Your task to perform on an android device: Go to privacy settings Image 0: 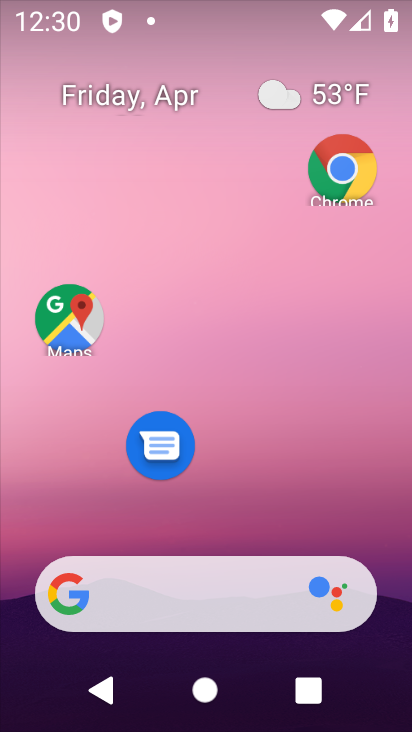
Step 0: drag from (305, 439) to (245, 160)
Your task to perform on an android device: Go to privacy settings Image 1: 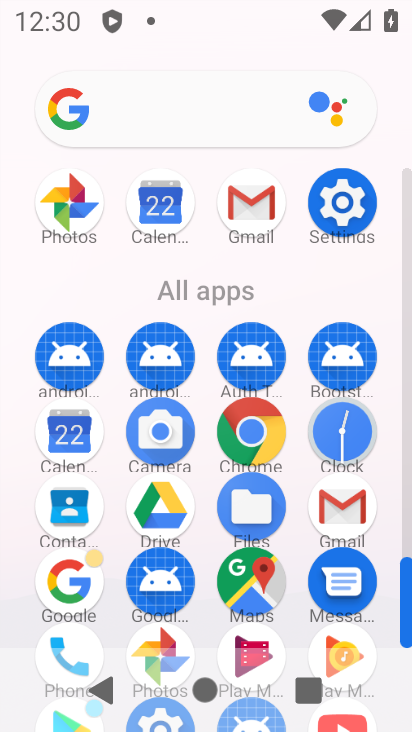
Step 1: click (357, 226)
Your task to perform on an android device: Go to privacy settings Image 2: 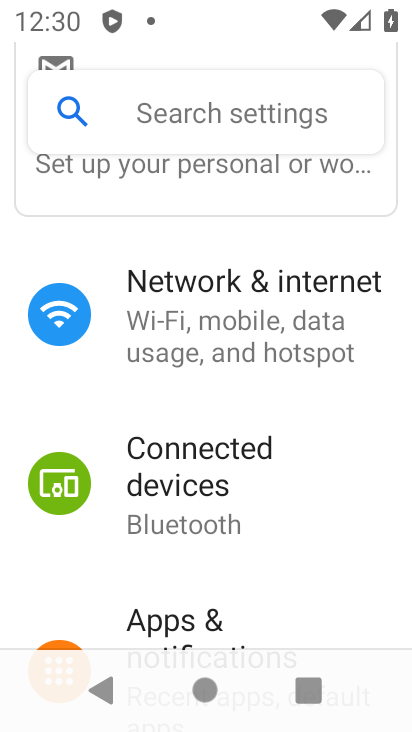
Step 2: drag from (212, 579) to (206, 285)
Your task to perform on an android device: Go to privacy settings Image 3: 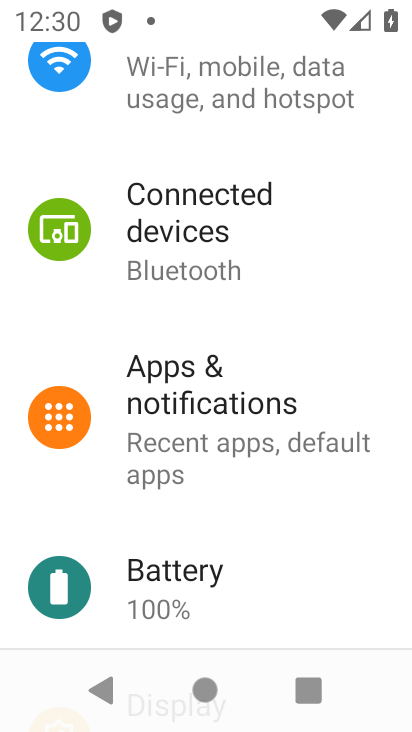
Step 3: drag from (119, 540) to (170, 170)
Your task to perform on an android device: Go to privacy settings Image 4: 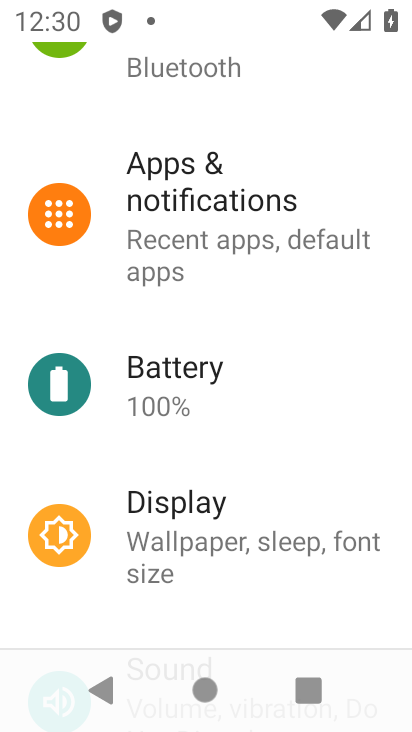
Step 4: drag from (118, 434) to (130, 26)
Your task to perform on an android device: Go to privacy settings Image 5: 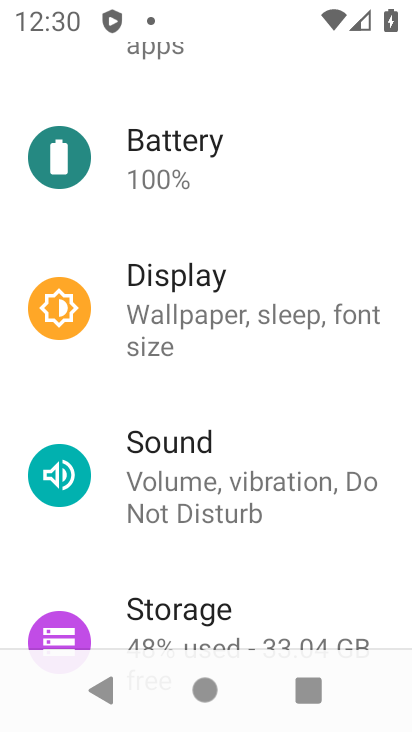
Step 5: drag from (196, 541) to (170, 156)
Your task to perform on an android device: Go to privacy settings Image 6: 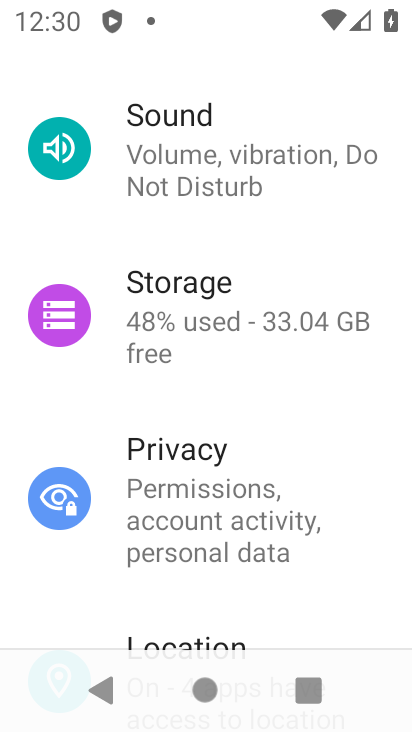
Step 6: drag from (192, 591) to (169, 250)
Your task to perform on an android device: Go to privacy settings Image 7: 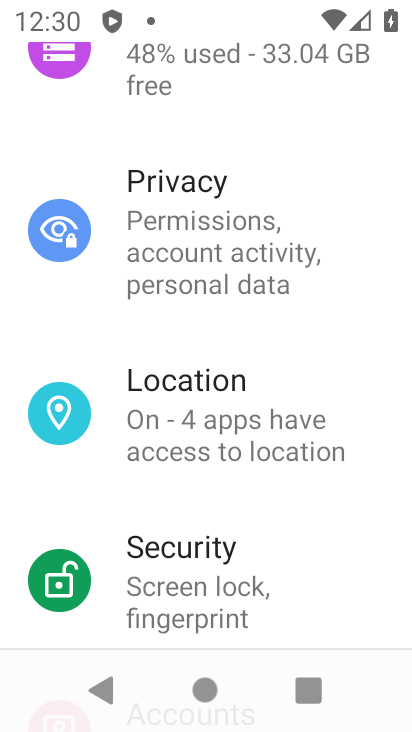
Step 7: drag from (259, 636) to (208, 286)
Your task to perform on an android device: Go to privacy settings Image 8: 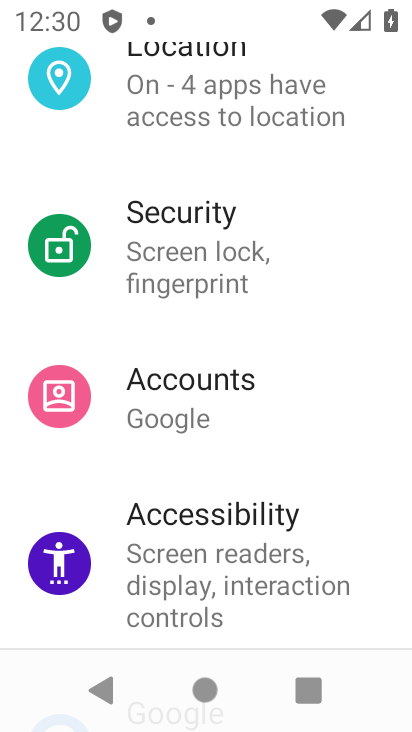
Step 8: drag from (199, 464) to (197, 209)
Your task to perform on an android device: Go to privacy settings Image 9: 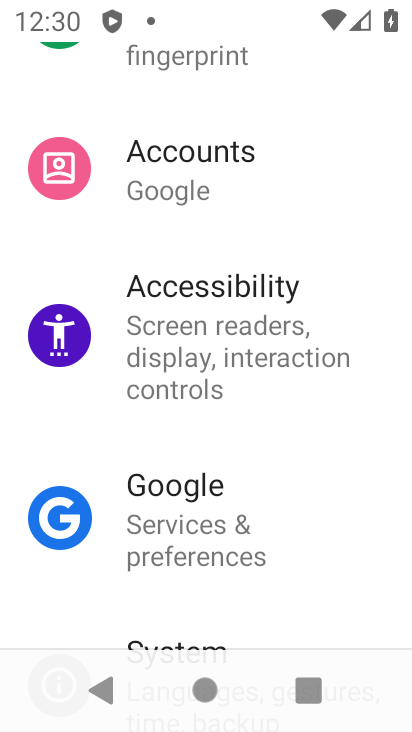
Step 9: drag from (217, 416) to (142, 129)
Your task to perform on an android device: Go to privacy settings Image 10: 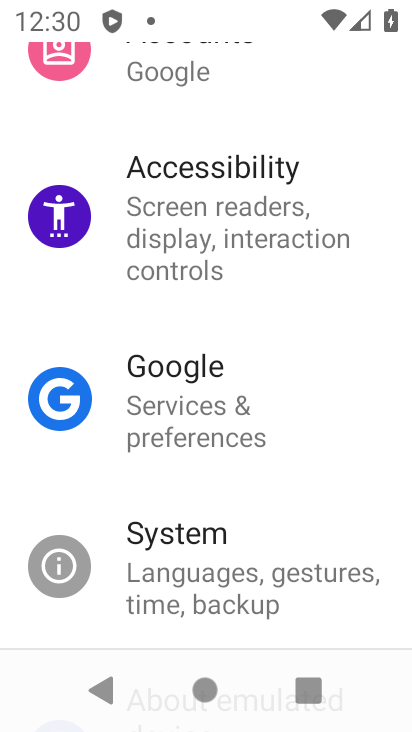
Step 10: drag from (138, 486) to (133, 353)
Your task to perform on an android device: Go to privacy settings Image 11: 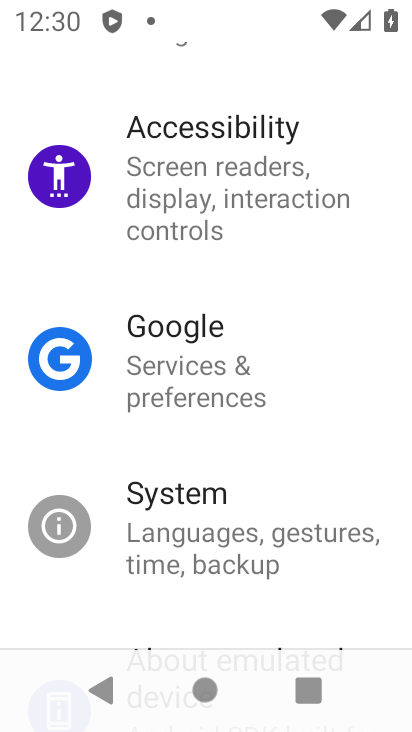
Step 11: drag from (127, 445) to (109, 216)
Your task to perform on an android device: Go to privacy settings Image 12: 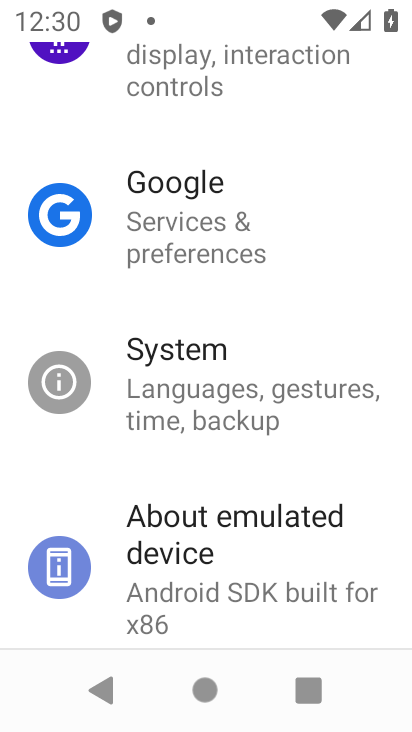
Step 12: drag from (149, 473) to (147, 354)
Your task to perform on an android device: Go to privacy settings Image 13: 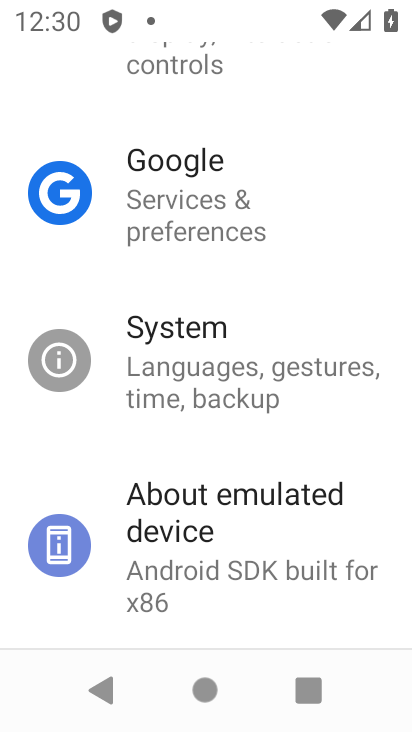
Step 13: drag from (151, 167) to (176, 397)
Your task to perform on an android device: Go to privacy settings Image 14: 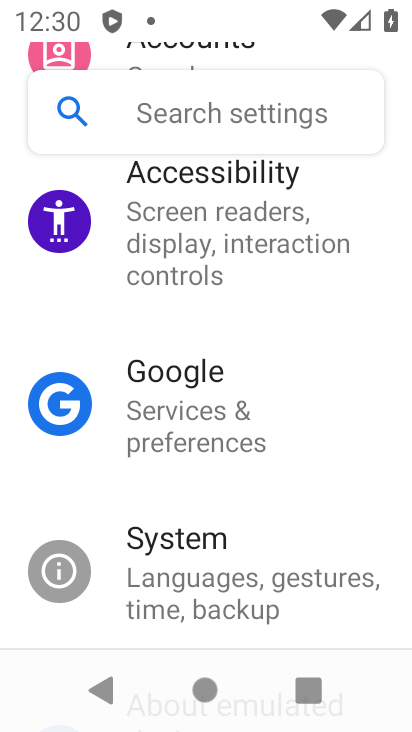
Step 14: drag from (173, 305) to (162, 446)
Your task to perform on an android device: Go to privacy settings Image 15: 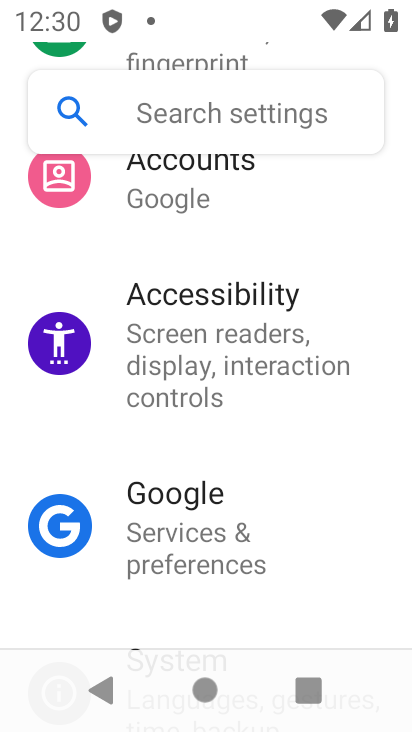
Step 15: drag from (156, 231) to (145, 341)
Your task to perform on an android device: Go to privacy settings Image 16: 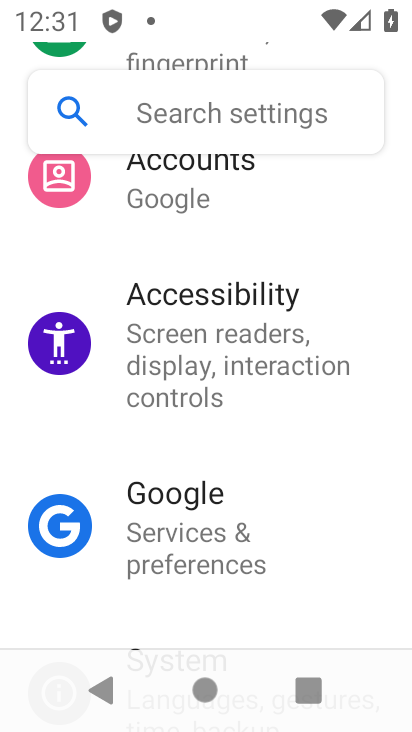
Step 16: drag from (163, 238) to (163, 512)
Your task to perform on an android device: Go to privacy settings Image 17: 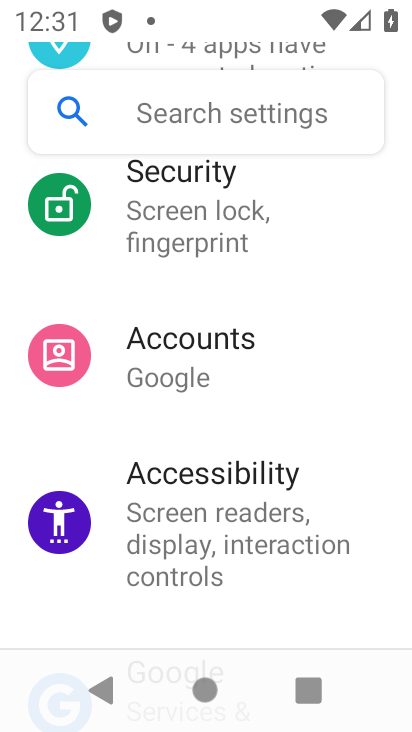
Step 17: drag from (154, 302) to (189, 499)
Your task to perform on an android device: Go to privacy settings Image 18: 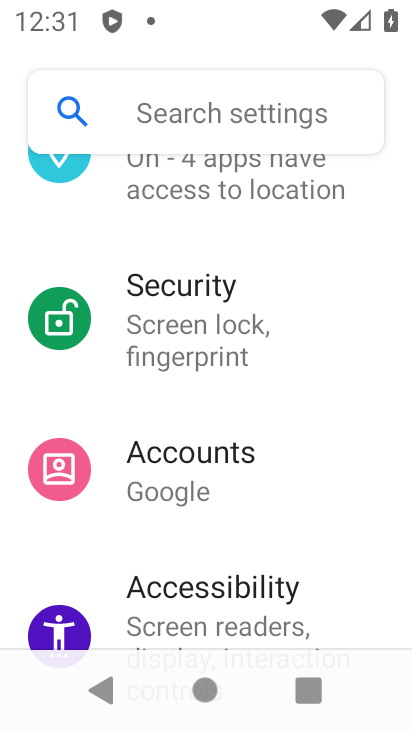
Step 18: drag from (187, 272) to (211, 476)
Your task to perform on an android device: Go to privacy settings Image 19: 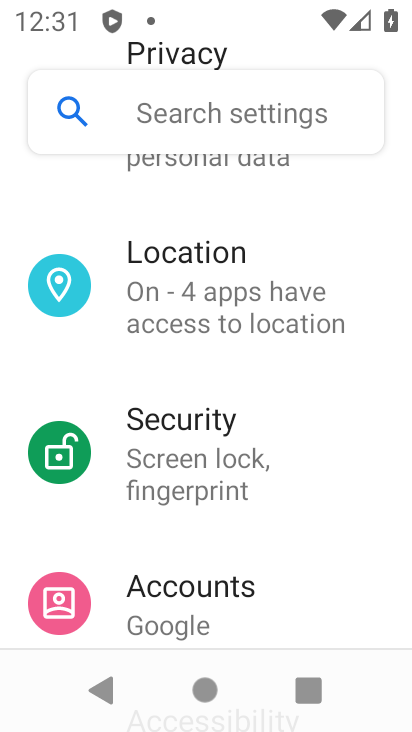
Step 19: drag from (158, 201) to (165, 383)
Your task to perform on an android device: Go to privacy settings Image 20: 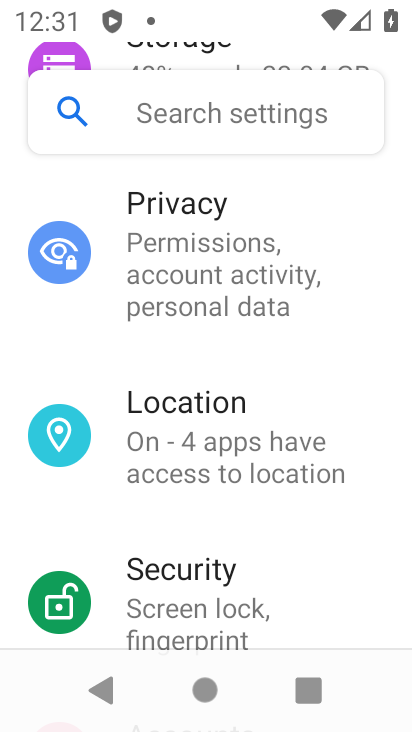
Step 20: click (176, 261)
Your task to perform on an android device: Go to privacy settings Image 21: 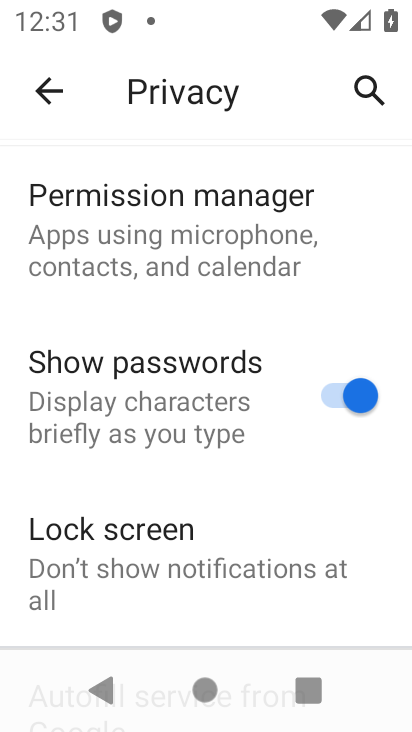
Step 21: task complete